Your task to perform on an android device: toggle notifications settings in the gmail app Image 0: 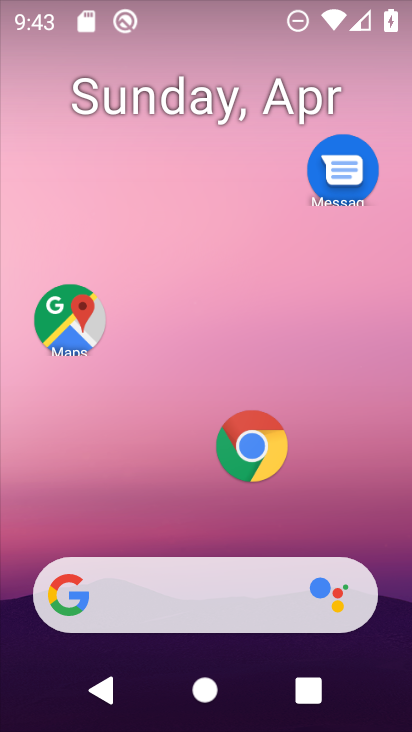
Step 0: drag from (212, 487) to (208, 163)
Your task to perform on an android device: toggle notifications settings in the gmail app Image 1: 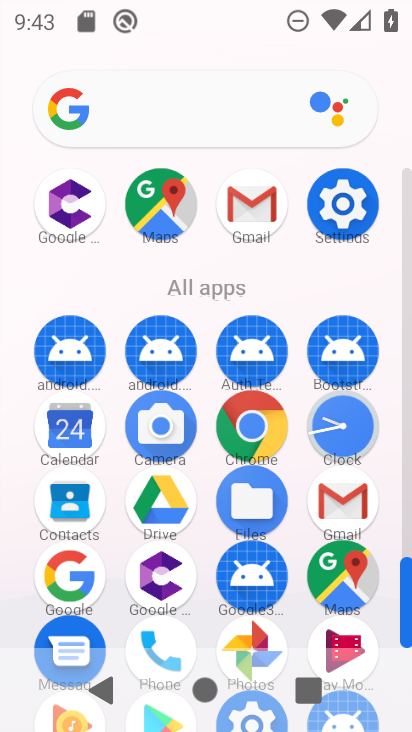
Step 1: click (346, 496)
Your task to perform on an android device: toggle notifications settings in the gmail app Image 2: 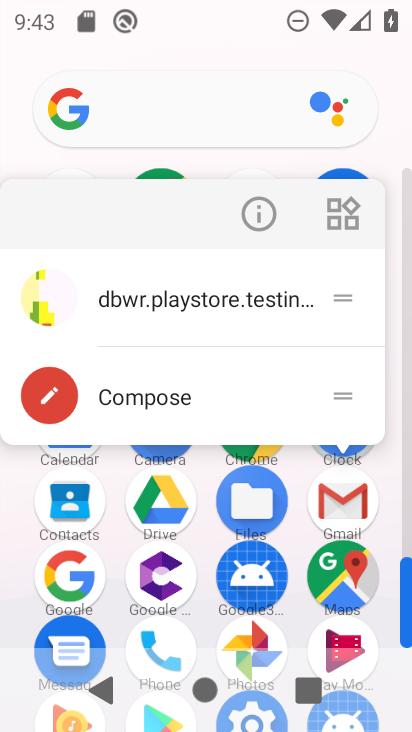
Step 2: click (260, 221)
Your task to perform on an android device: toggle notifications settings in the gmail app Image 3: 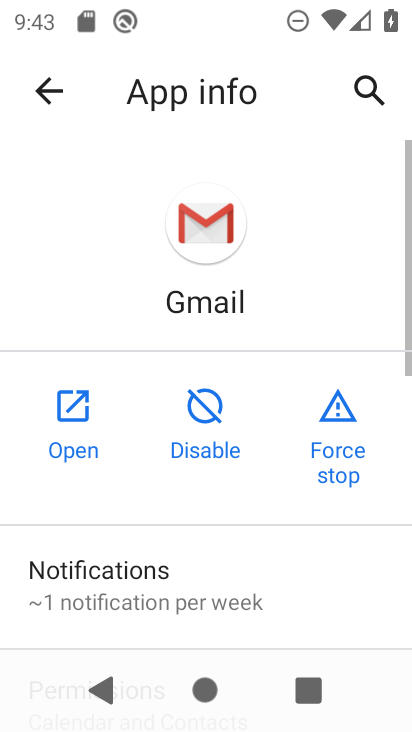
Step 3: click (67, 393)
Your task to perform on an android device: toggle notifications settings in the gmail app Image 4: 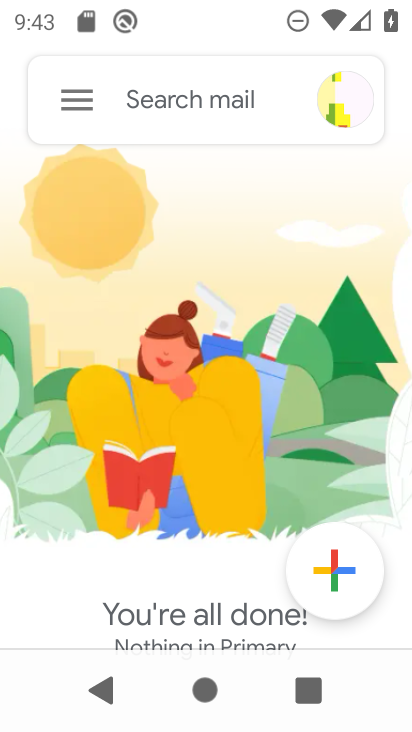
Step 4: click (73, 112)
Your task to perform on an android device: toggle notifications settings in the gmail app Image 5: 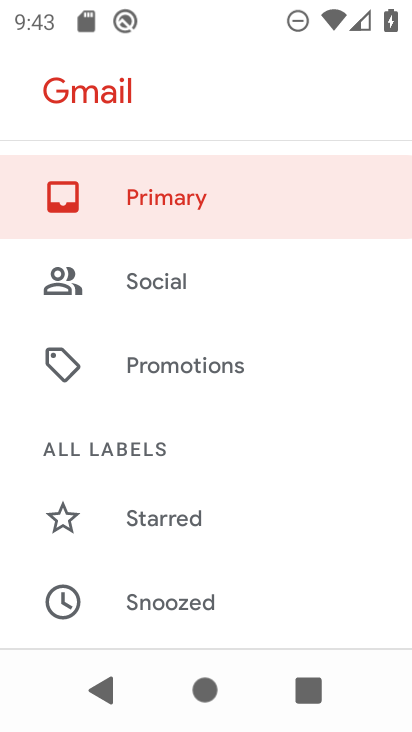
Step 5: drag from (158, 574) to (280, 108)
Your task to perform on an android device: toggle notifications settings in the gmail app Image 6: 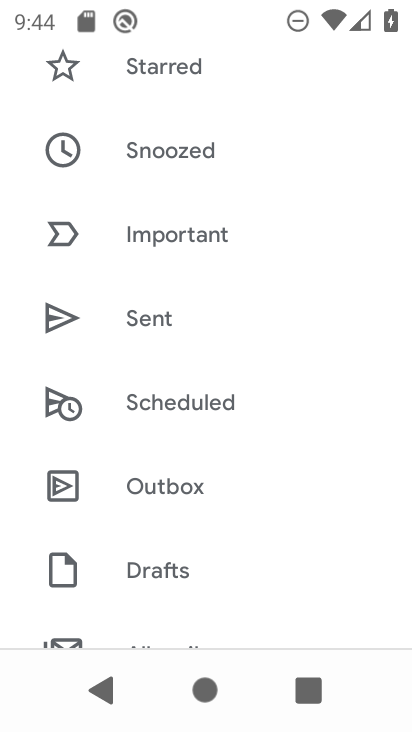
Step 6: drag from (204, 241) to (243, 108)
Your task to perform on an android device: toggle notifications settings in the gmail app Image 7: 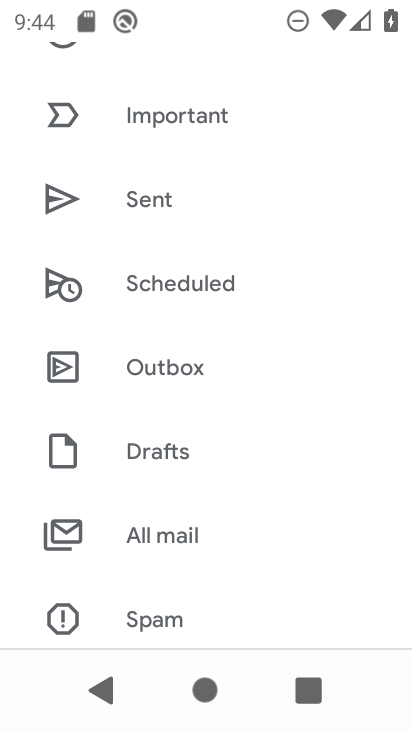
Step 7: drag from (187, 583) to (211, 36)
Your task to perform on an android device: toggle notifications settings in the gmail app Image 8: 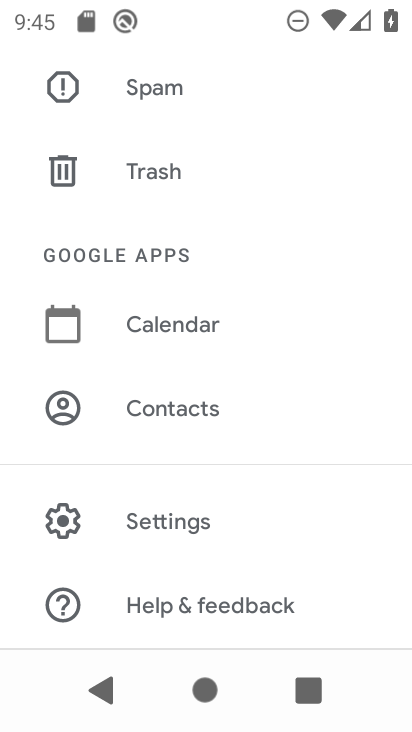
Step 8: click (194, 516)
Your task to perform on an android device: toggle notifications settings in the gmail app Image 9: 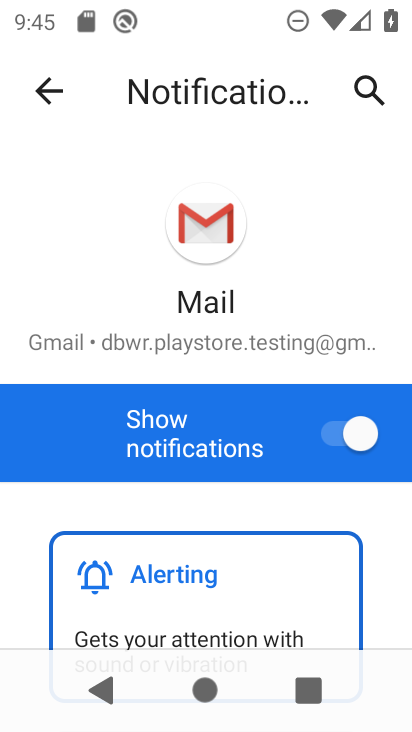
Step 9: drag from (180, 485) to (214, 76)
Your task to perform on an android device: toggle notifications settings in the gmail app Image 10: 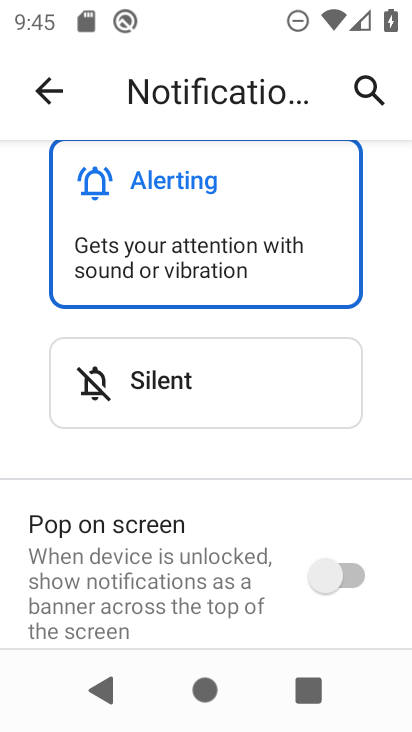
Step 10: drag from (203, 211) to (395, 589)
Your task to perform on an android device: toggle notifications settings in the gmail app Image 11: 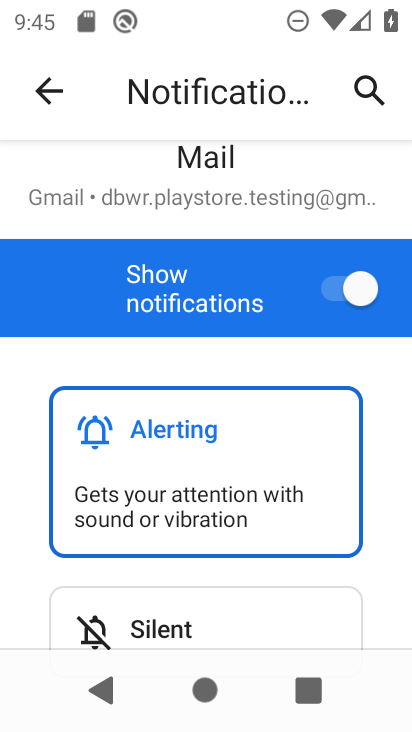
Step 11: click (326, 291)
Your task to perform on an android device: toggle notifications settings in the gmail app Image 12: 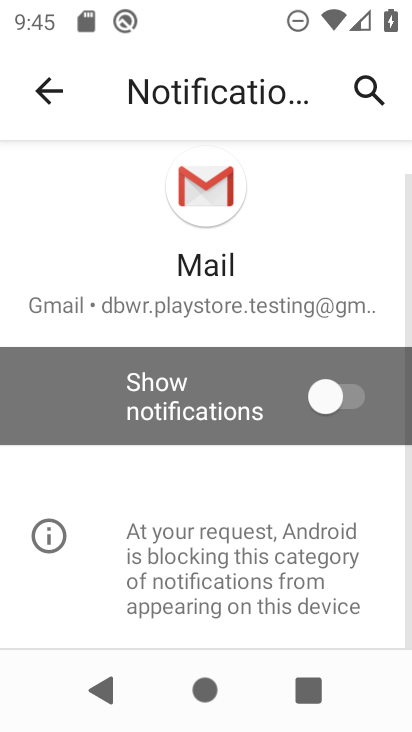
Step 12: task complete